Your task to perform on an android device: Open network settings Image 0: 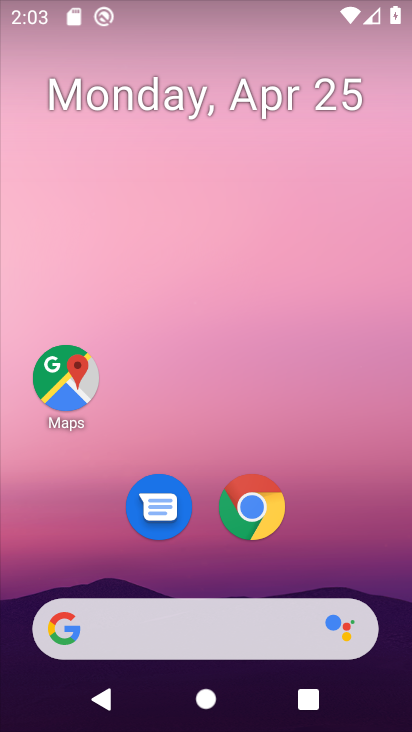
Step 0: drag from (205, 582) to (358, 48)
Your task to perform on an android device: Open network settings Image 1: 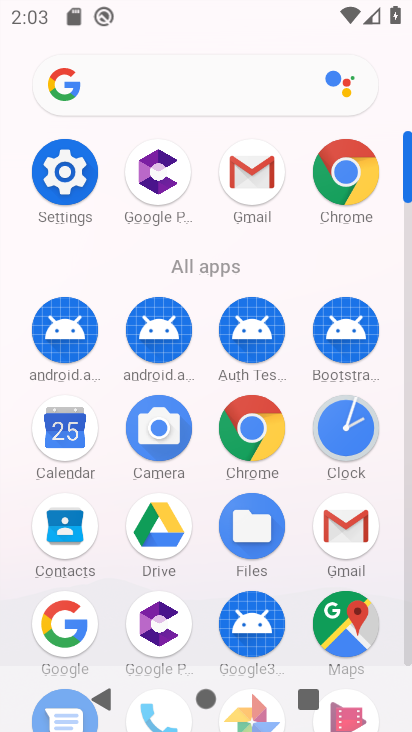
Step 1: click (72, 187)
Your task to perform on an android device: Open network settings Image 2: 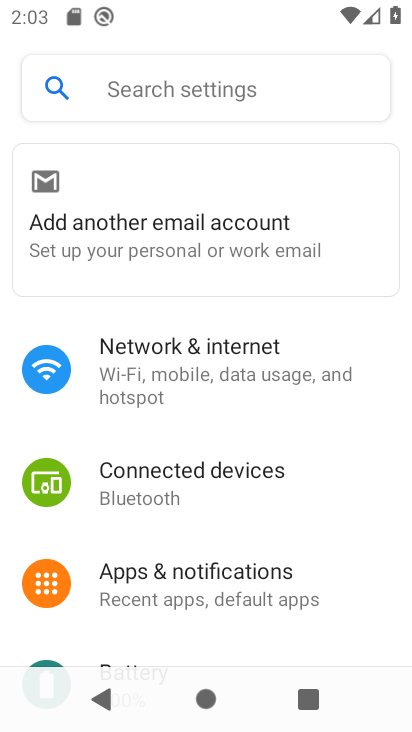
Step 2: click (198, 374)
Your task to perform on an android device: Open network settings Image 3: 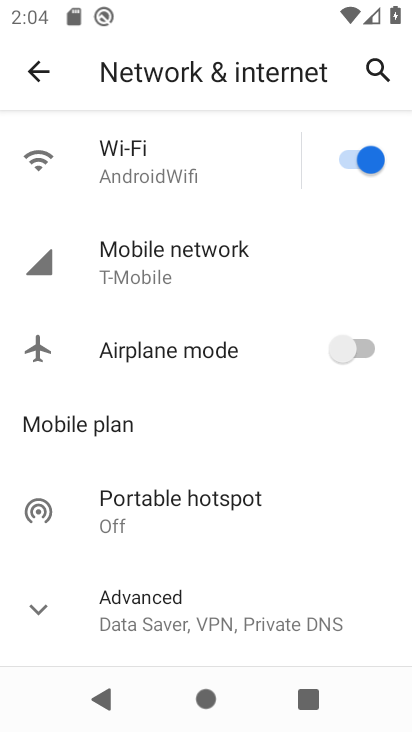
Step 3: task complete